Your task to perform on an android device: Open location settings Image 0: 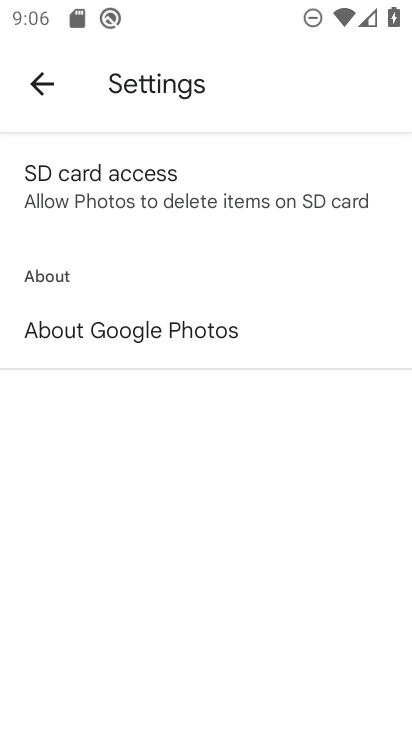
Step 0: press home button
Your task to perform on an android device: Open location settings Image 1: 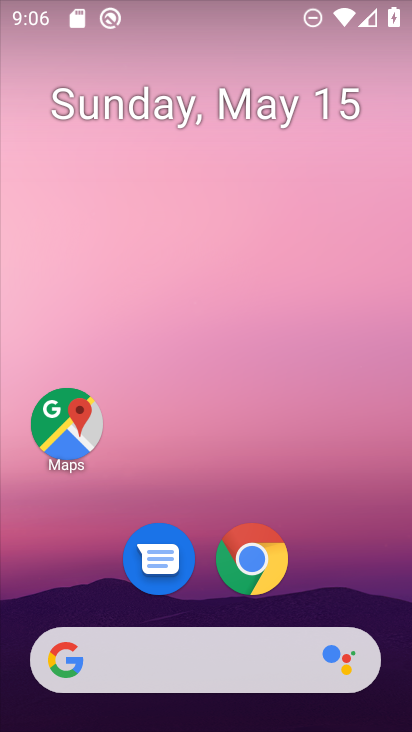
Step 1: drag from (351, 566) to (319, 202)
Your task to perform on an android device: Open location settings Image 2: 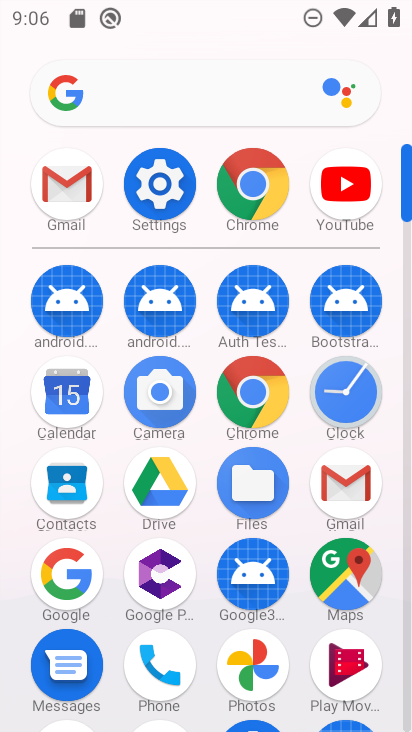
Step 2: click (160, 208)
Your task to perform on an android device: Open location settings Image 3: 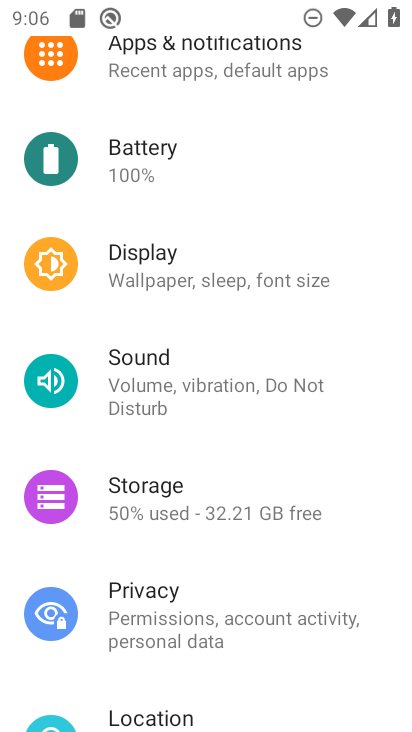
Step 3: click (224, 699)
Your task to perform on an android device: Open location settings Image 4: 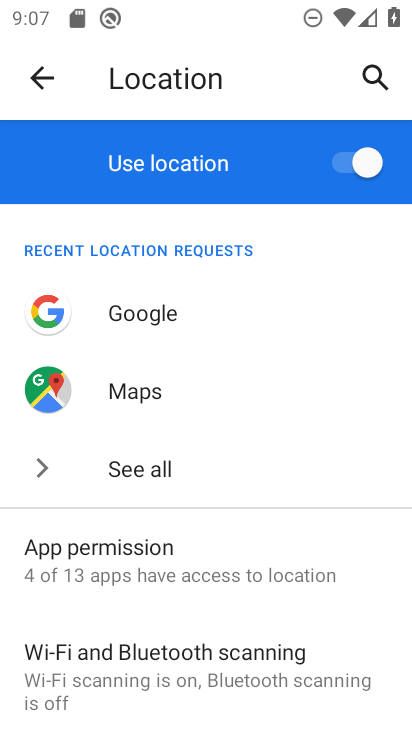
Step 4: drag from (193, 647) to (243, 275)
Your task to perform on an android device: Open location settings Image 5: 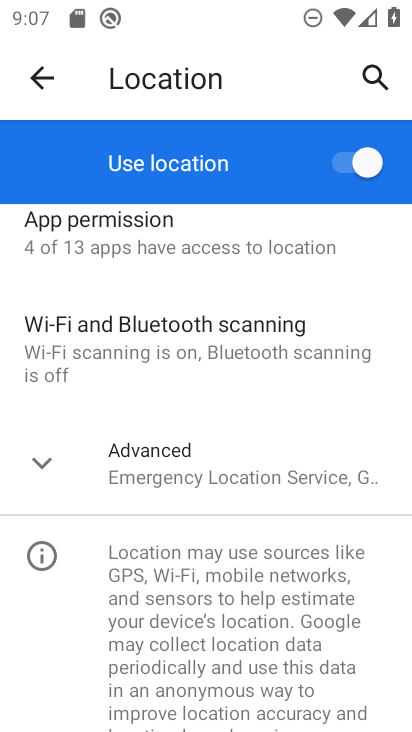
Step 5: click (203, 465)
Your task to perform on an android device: Open location settings Image 6: 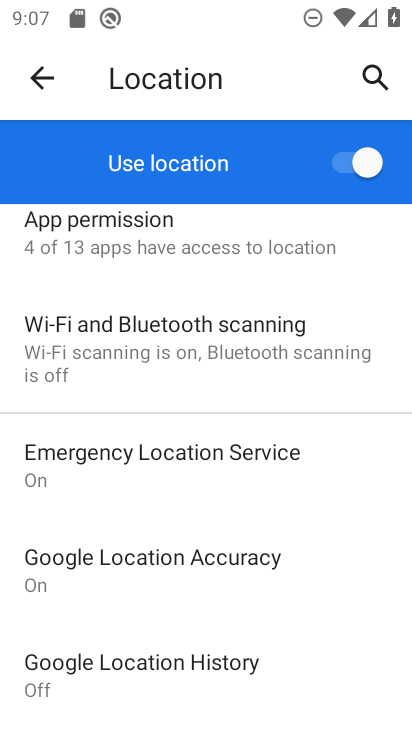
Step 6: task complete